Your task to perform on an android device: Open accessibility settings Image 0: 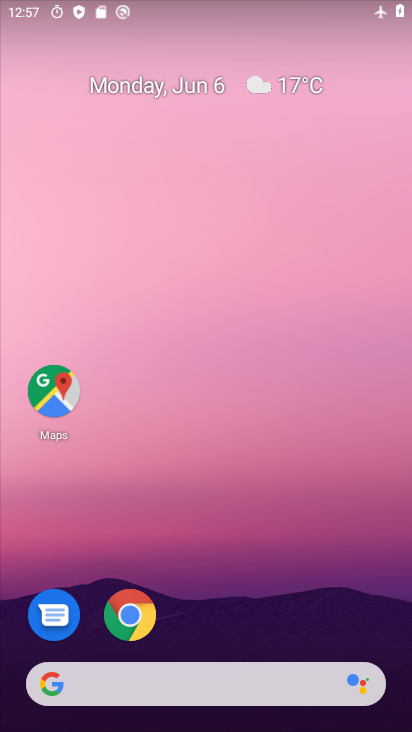
Step 0: drag from (206, 574) to (302, 132)
Your task to perform on an android device: Open accessibility settings Image 1: 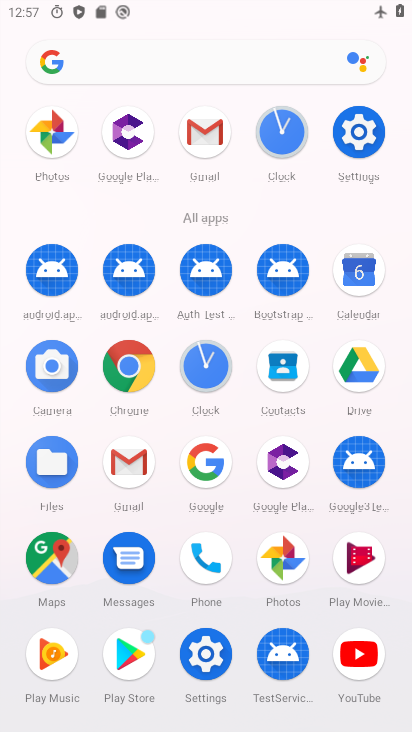
Step 1: click (353, 125)
Your task to perform on an android device: Open accessibility settings Image 2: 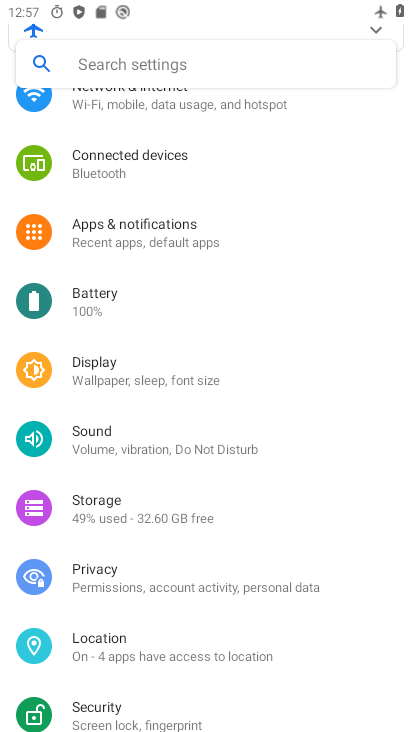
Step 2: drag from (179, 511) to (258, 131)
Your task to perform on an android device: Open accessibility settings Image 3: 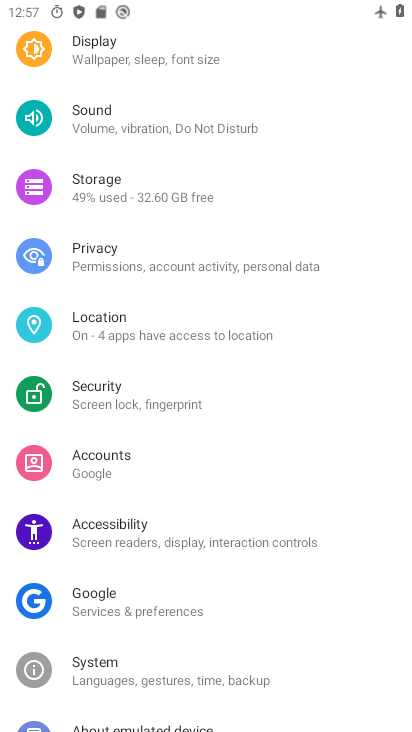
Step 3: click (158, 533)
Your task to perform on an android device: Open accessibility settings Image 4: 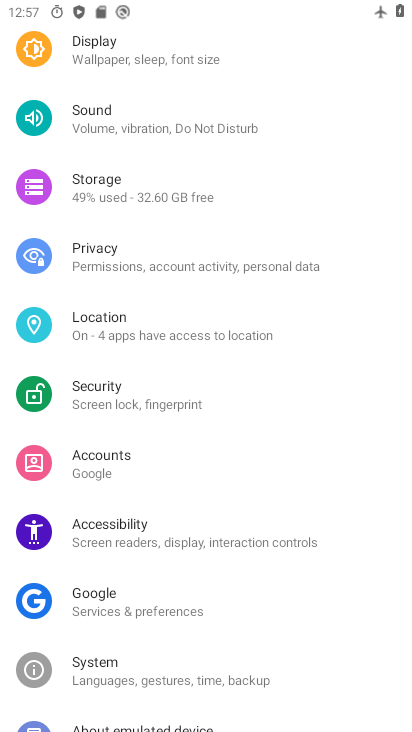
Step 4: click (156, 528)
Your task to perform on an android device: Open accessibility settings Image 5: 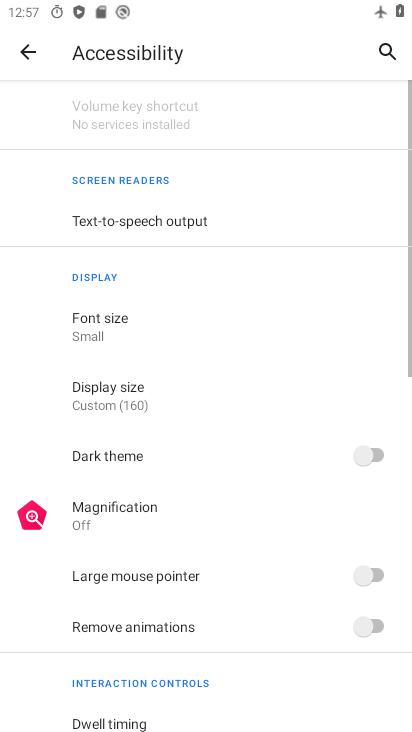
Step 5: task complete